Your task to perform on an android device: Do I have any events today? Image 0: 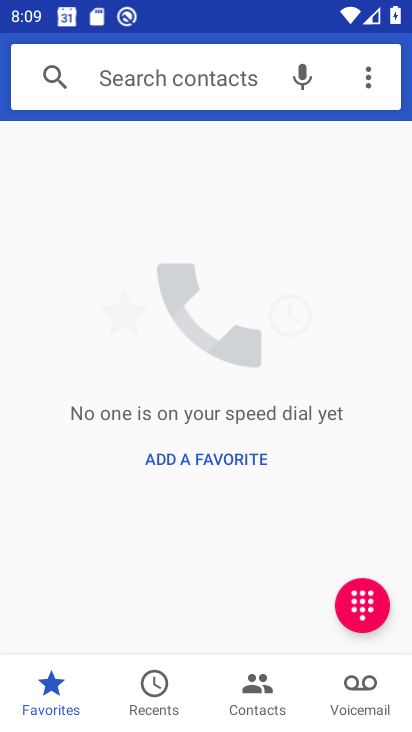
Step 0: press home button
Your task to perform on an android device: Do I have any events today? Image 1: 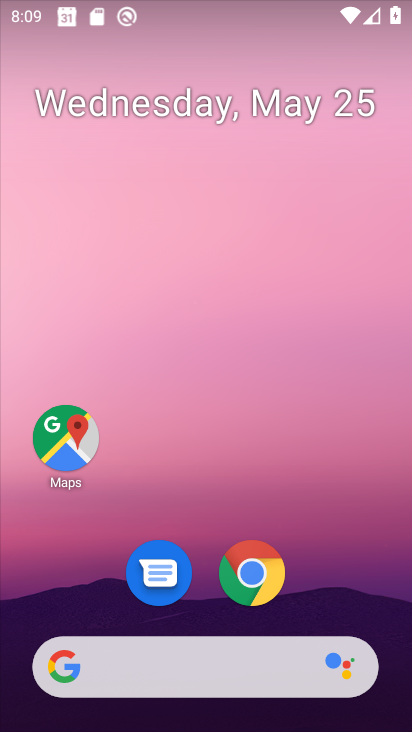
Step 1: drag from (361, 490) to (335, 252)
Your task to perform on an android device: Do I have any events today? Image 2: 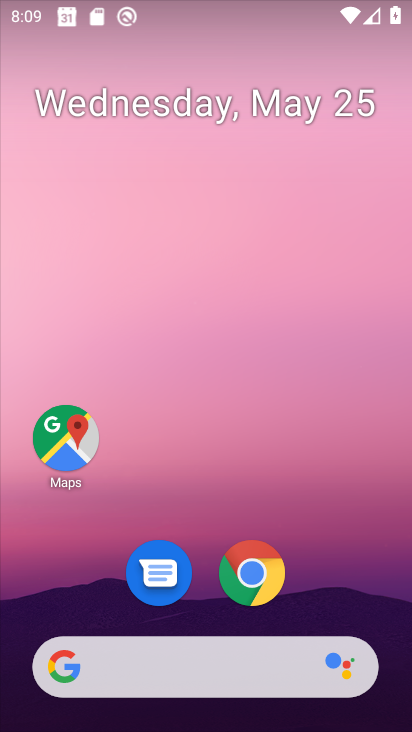
Step 2: drag from (395, 708) to (288, 116)
Your task to perform on an android device: Do I have any events today? Image 3: 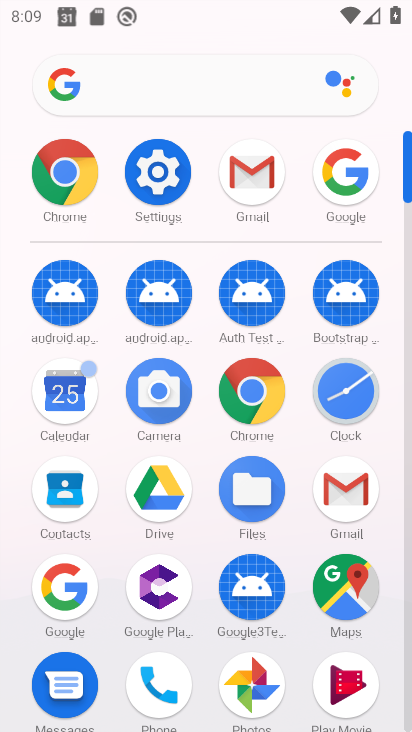
Step 3: click (60, 416)
Your task to perform on an android device: Do I have any events today? Image 4: 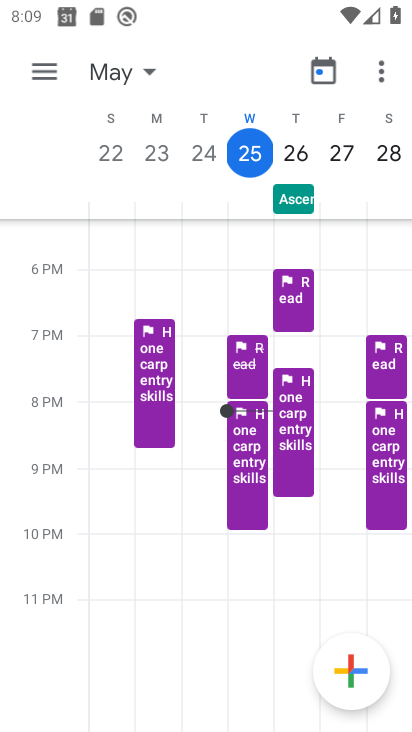
Step 4: click (47, 70)
Your task to perform on an android device: Do I have any events today? Image 5: 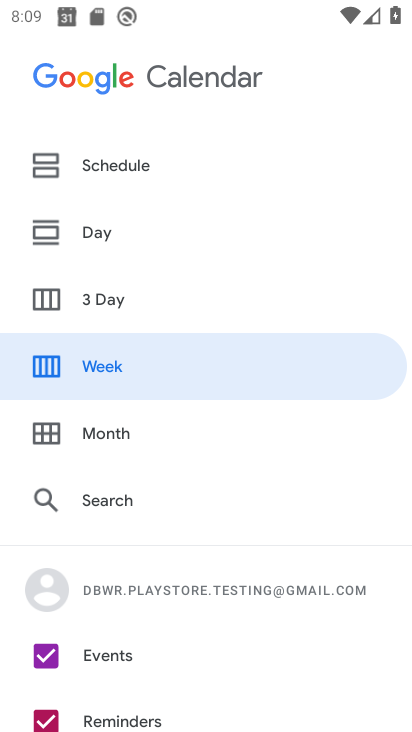
Step 5: click (82, 230)
Your task to perform on an android device: Do I have any events today? Image 6: 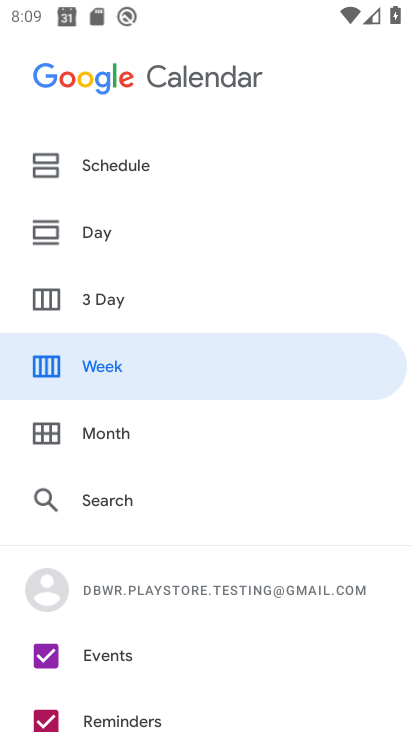
Step 6: click (85, 228)
Your task to perform on an android device: Do I have any events today? Image 7: 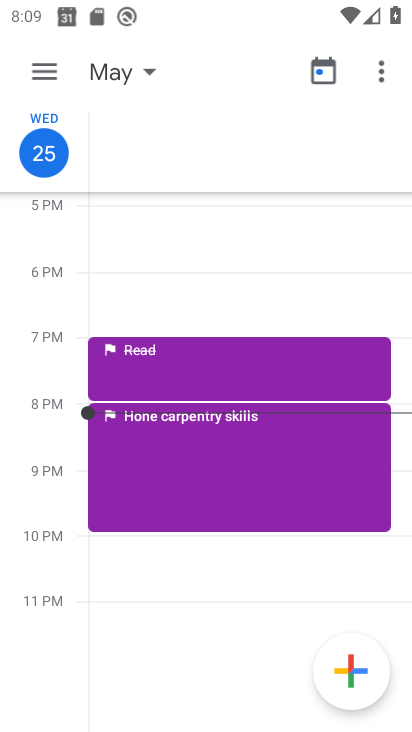
Step 7: click (145, 67)
Your task to perform on an android device: Do I have any events today? Image 8: 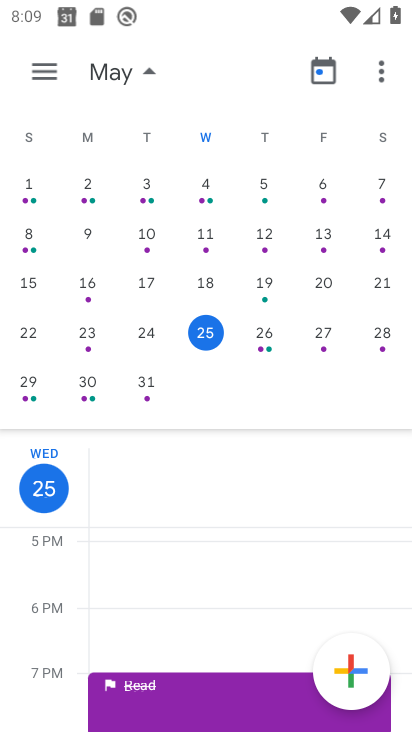
Step 8: click (199, 326)
Your task to perform on an android device: Do I have any events today? Image 9: 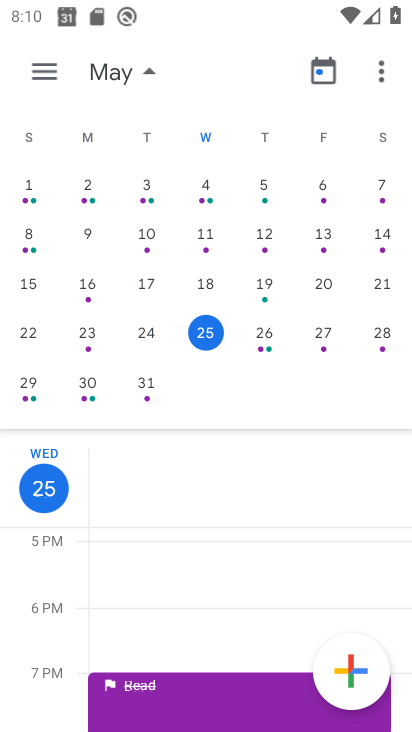
Step 9: click (199, 326)
Your task to perform on an android device: Do I have any events today? Image 10: 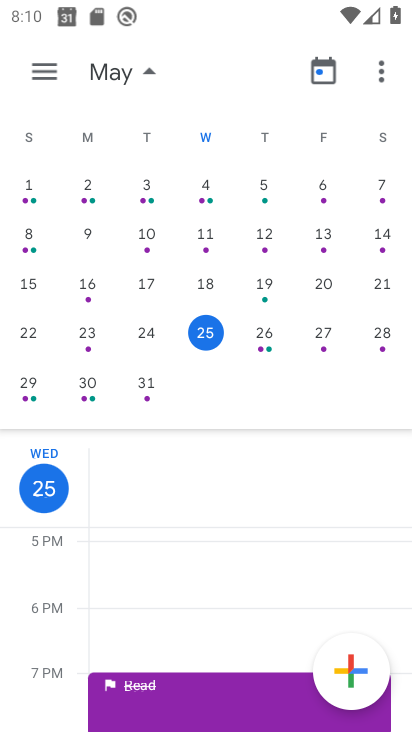
Step 10: click (200, 331)
Your task to perform on an android device: Do I have any events today? Image 11: 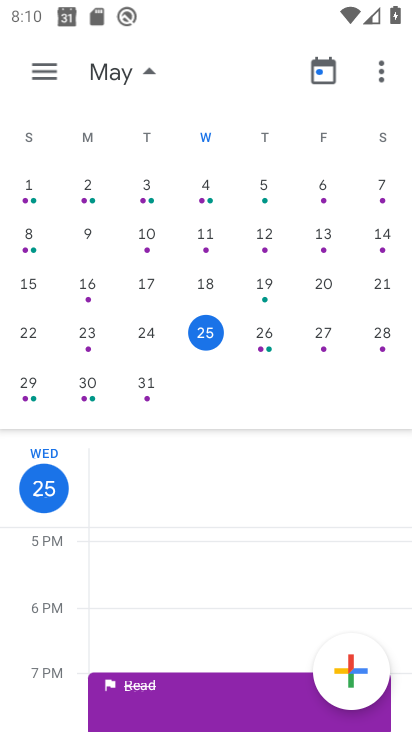
Step 11: click (44, 71)
Your task to perform on an android device: Do I have any events today? Image 12: 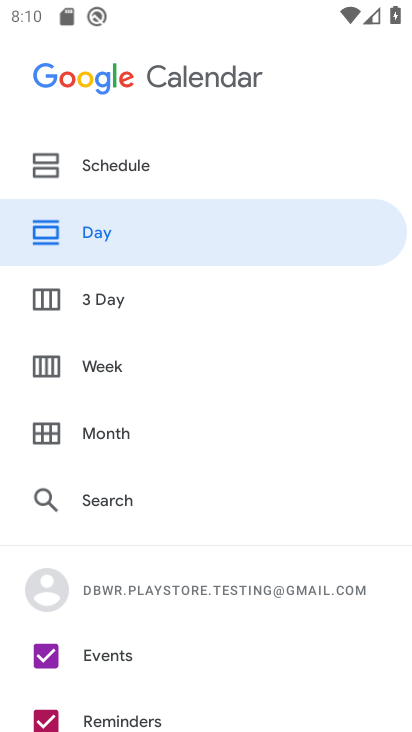
Step 12: click (99, 162)
Your task to perform on an android device: Do I have any events today? Image 13: 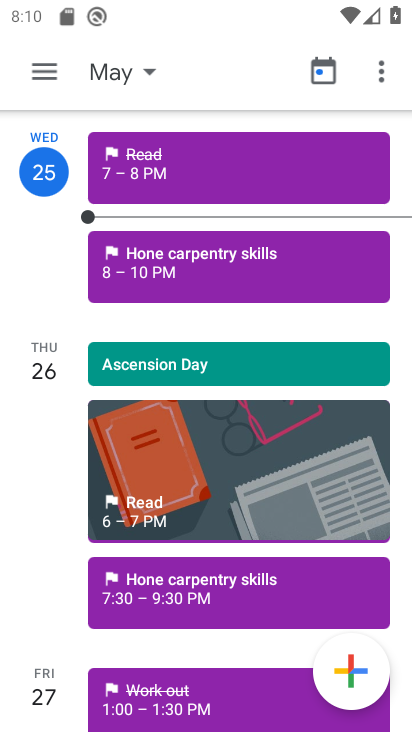
Step 13: task complete